Your task to perform on an android device: Go to internet settings Image 0: 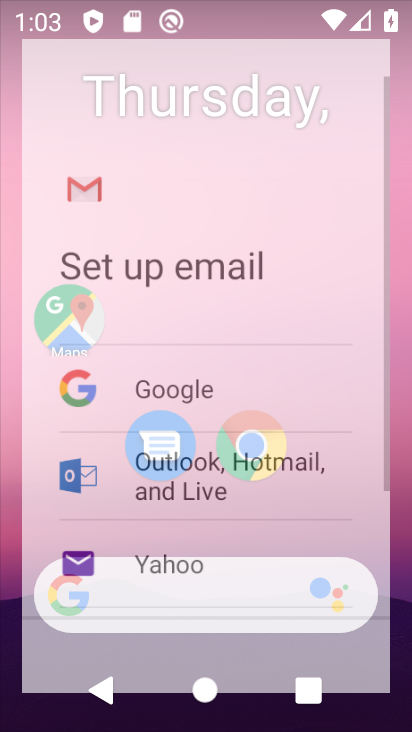
Step 0: press home button
Your task to perform on an android device: Go to internet settings Image 1: 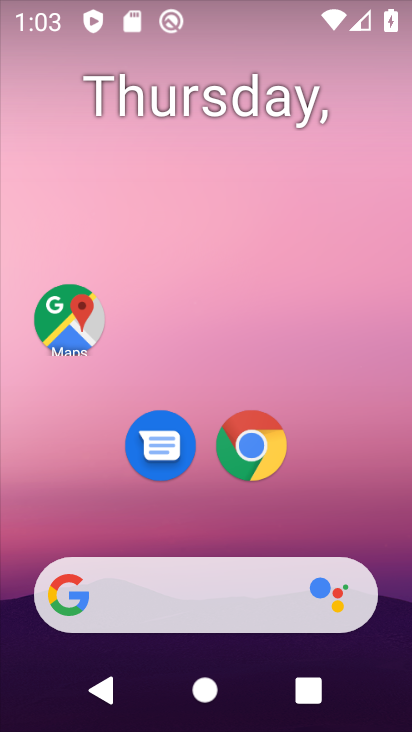
Step 1: drag from (3, 705) to (268, 128)
Your task to perform on an android device: Go to internet settings Image 2: 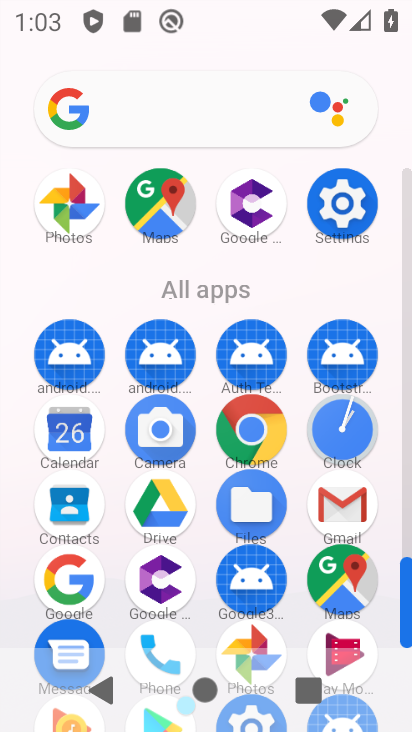
Step 2: click (343, 209)
Your task to perform on an android device: Go to internet settings Image 3: 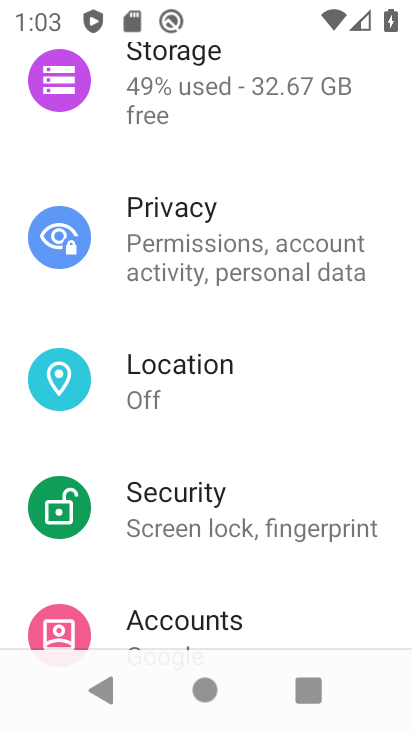
Step 3: drag from (286, 79) to (276, 628)
Your task to perform on an android device: Go to internet settings Image 4: 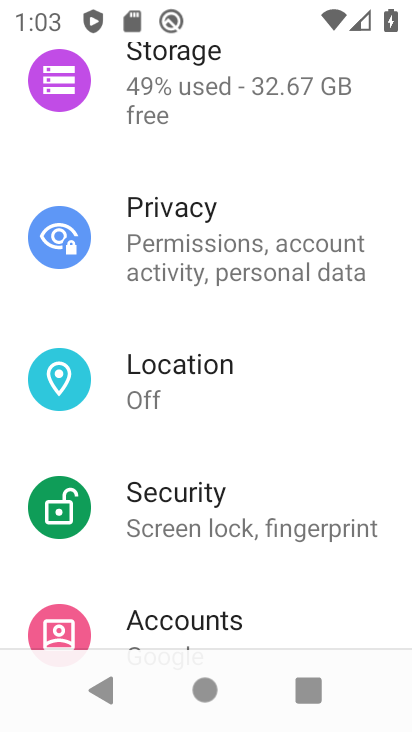
Step 4: drag from (42, 135) to (148, 558)
Your task to perform on an android device: Go to internet settings Image 5: 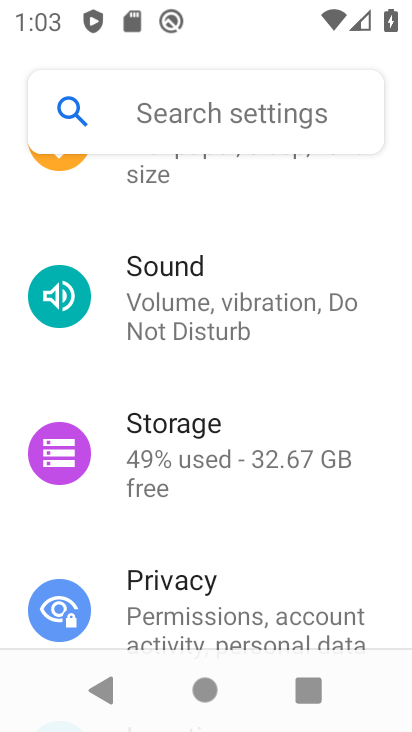
Step 5: drag from (178, 166) to (181, 607)
Your task to perform on an android device: Go to internet settings Image 6: 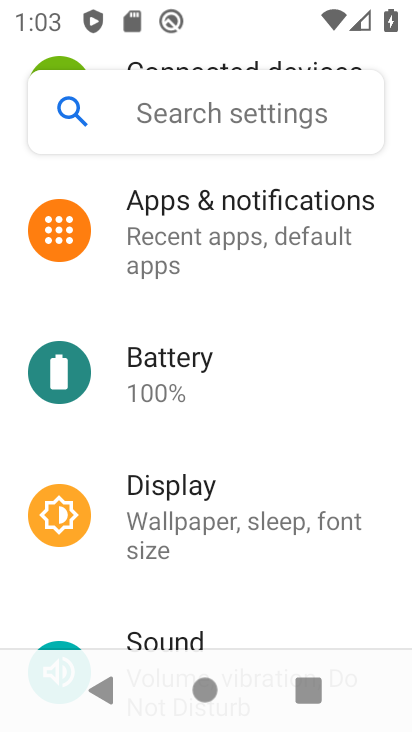
Step 6: drag from (165, 186) to (210, 585)
Your task to perform on an android device: Go to internet settings Image 7: 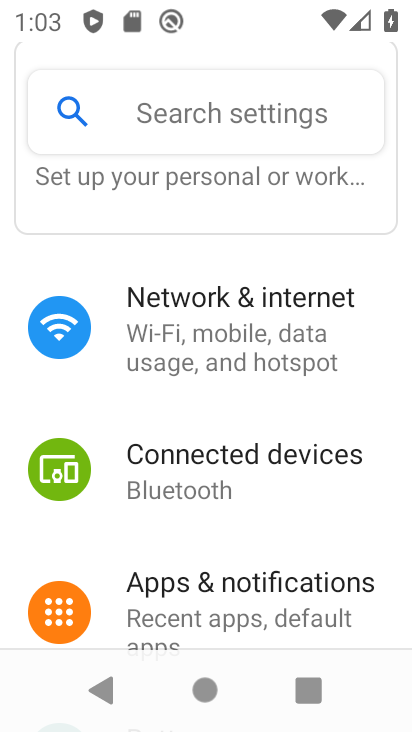
Step 7: click (226, 317)
Your task to perform on an android device: Go to internet settings Image 8: 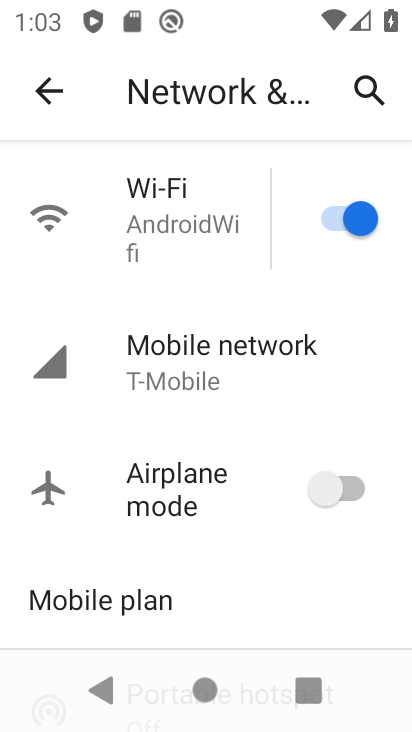
Step 8: click (237, 372)
Your task to perform on an android device: Go to internet settings Image 9: 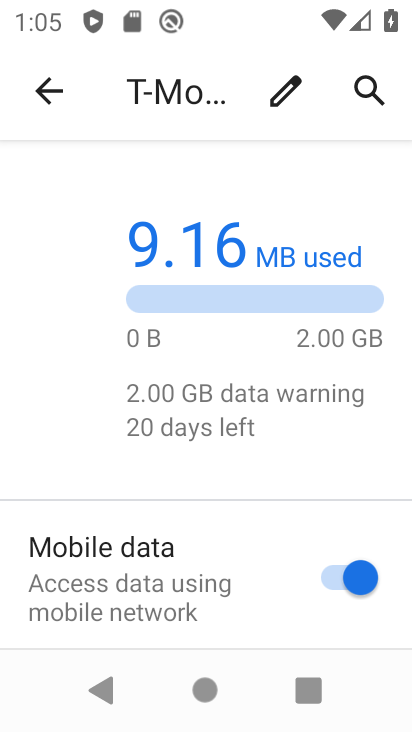
Step 9: task complete